Your task to perform on an android device: open a bookmark in the chrome app Image 0: 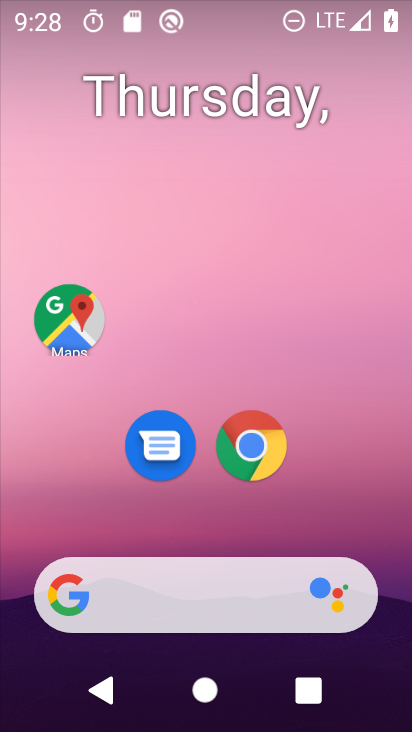
Step 0: drag from (207, 539) to (205, 118)
Your task to perform on an android device: open a bookmark in the chrome app Image 1: 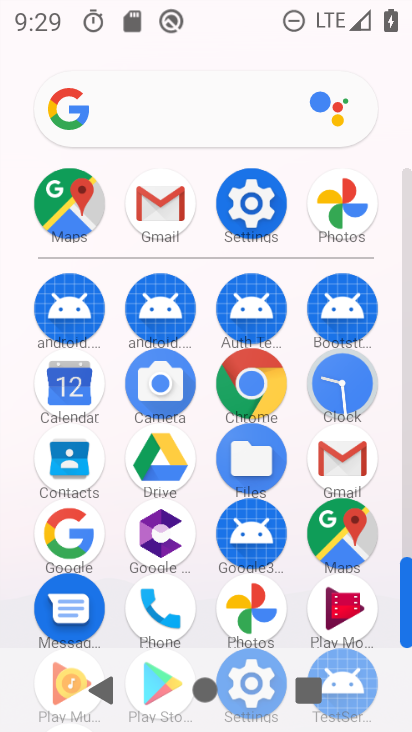
Step 1: click (252, 375)
Your task to perform on an android device: open a bookmark in the chrome app Image 2: 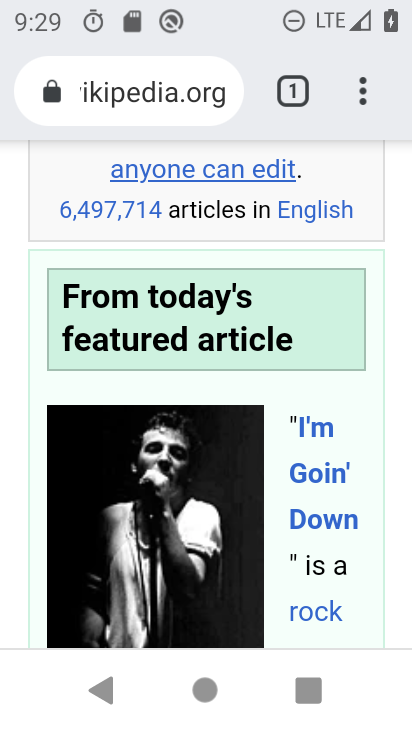
Step 2: task complete